Your task to perform on an android device: Open battery settings Image 0: 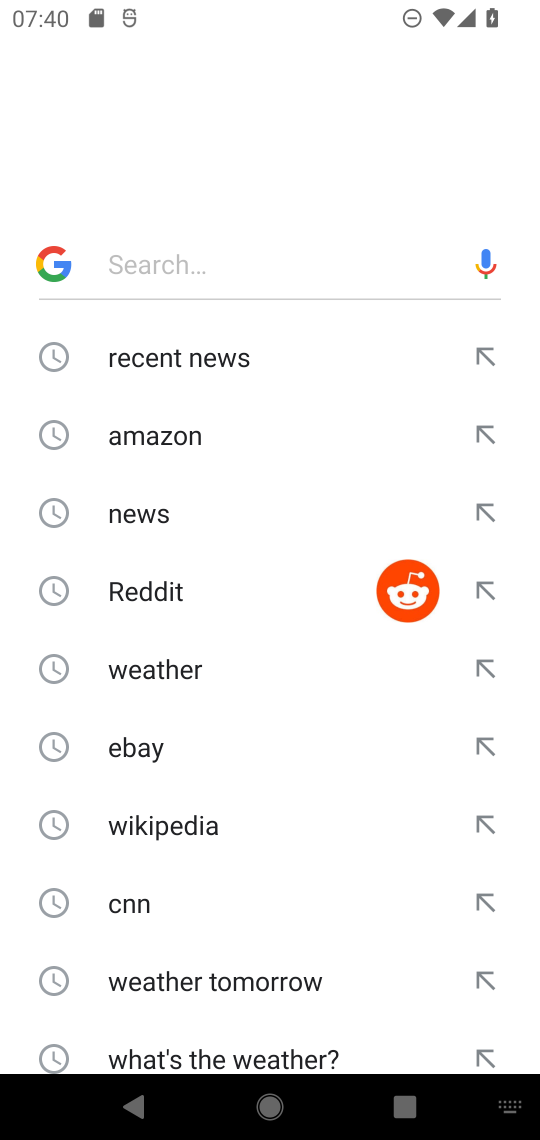
Step 0: press home button
Your task to perform on an android device: Open battery settings Image 1: 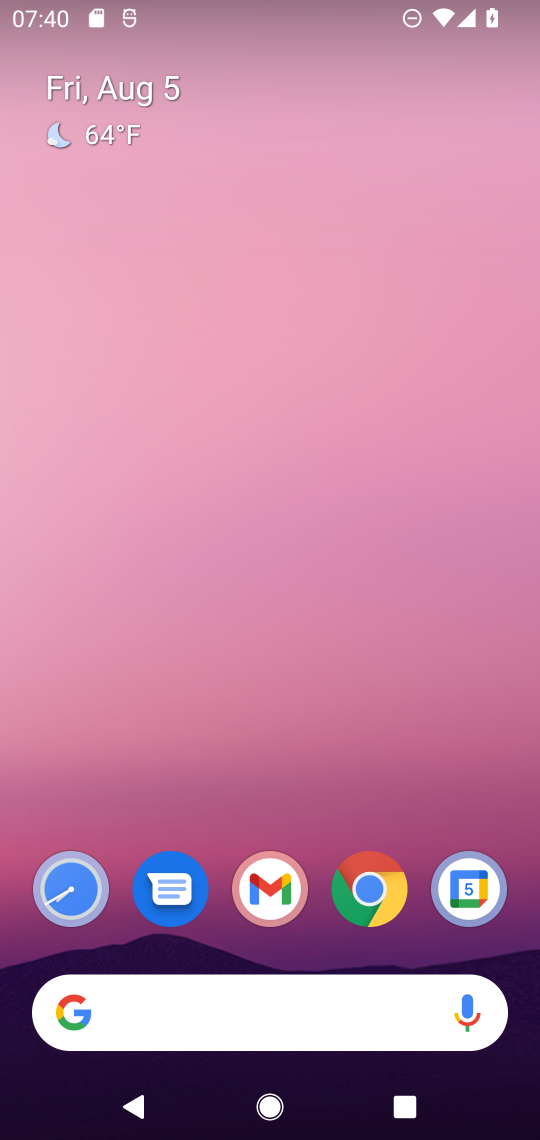
Step 1: drag from (238, 798) to (261, 435)
Your task to perform on an android device: Open battery settings Image 2: 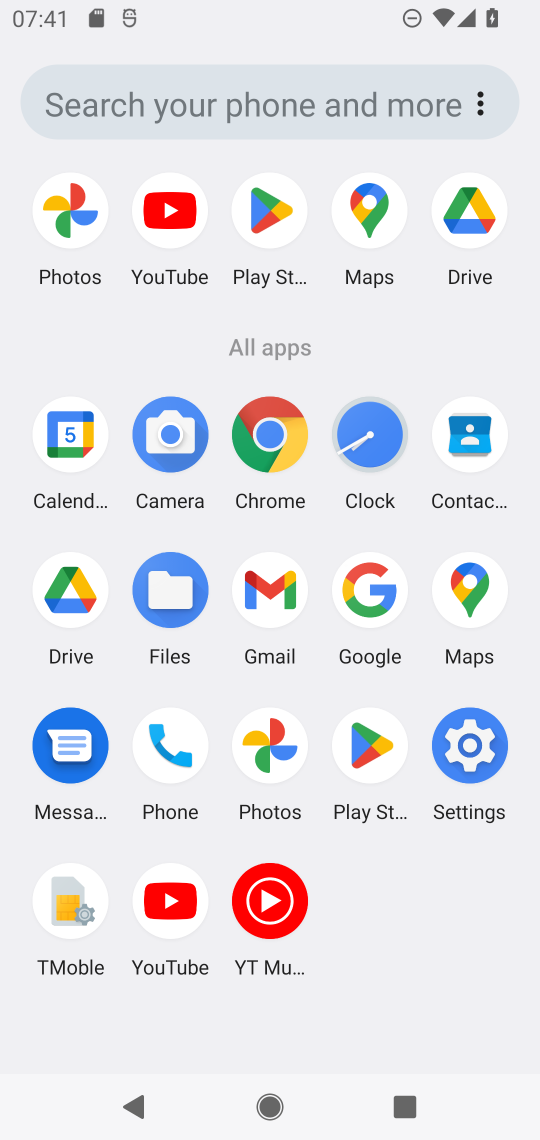
Step 2: click (478, 739)
Your task to perform on an android device: Open battery settings Image 3: 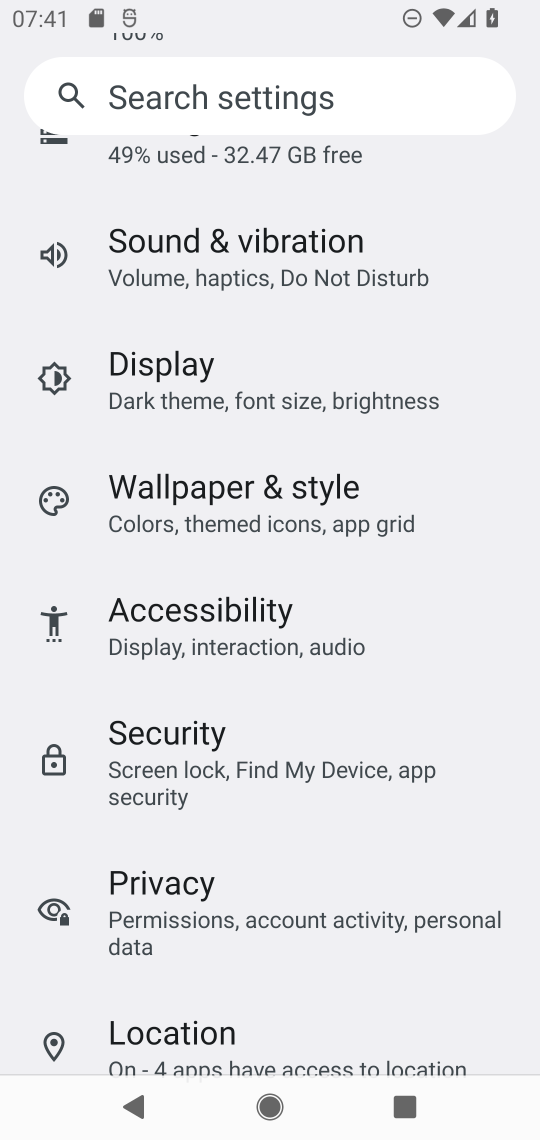
Step 3: drag from (166, 200) to (195, 767)
Your task to perform on an android device: Open battery settings Image 4: 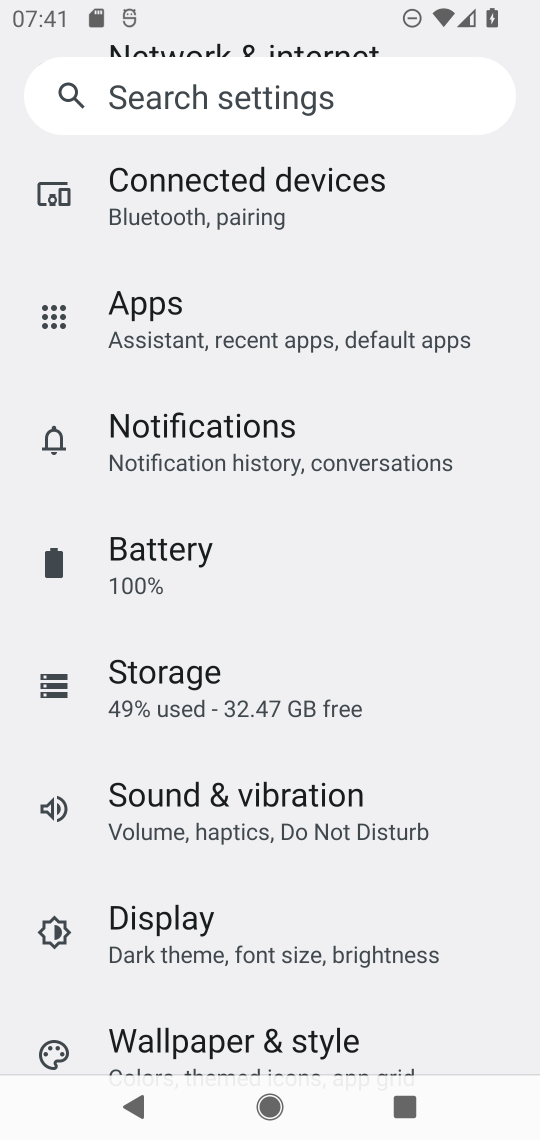
Step 4: click (157, 568)
Your task to perform on an android device: Open battery settings Image 5: 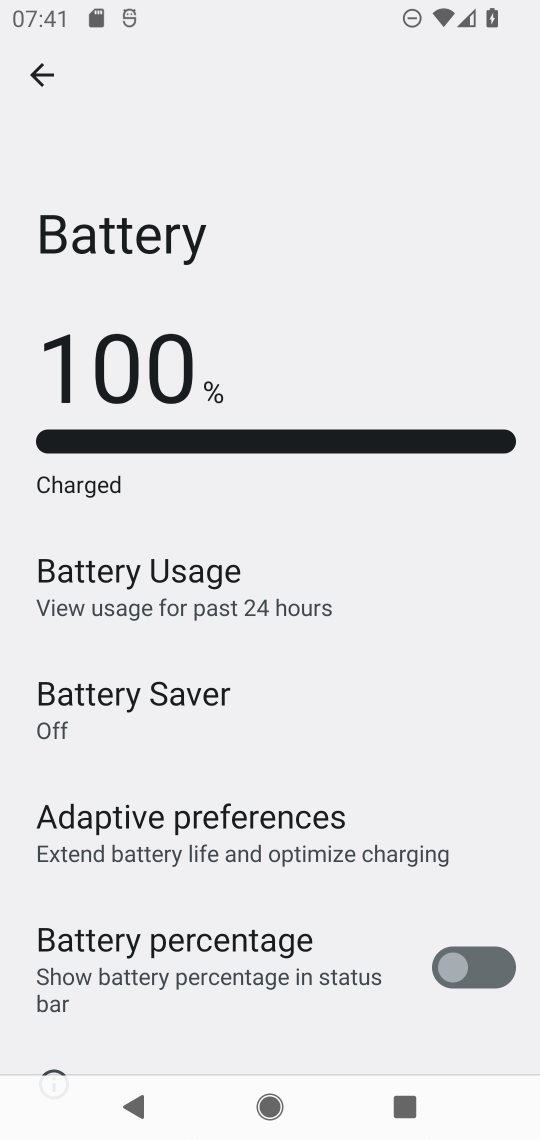
Step 5: task complete